Your task to perform on an android device: Open Amazon Image 0: 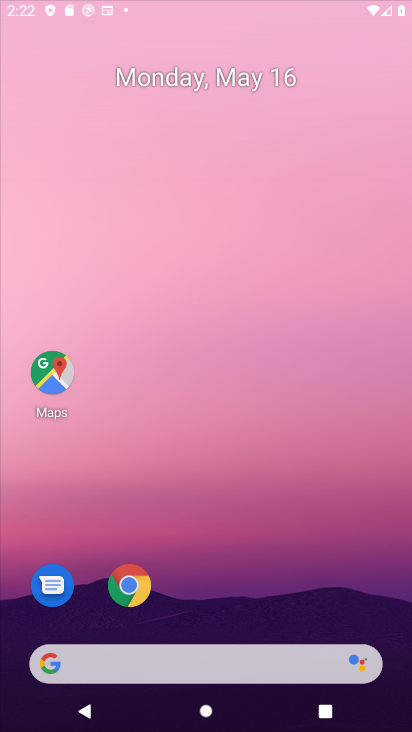
Step 0: drag from (231, 458) to (253, 116)
Your task to perform on an android device: Open Amazon Image 1: 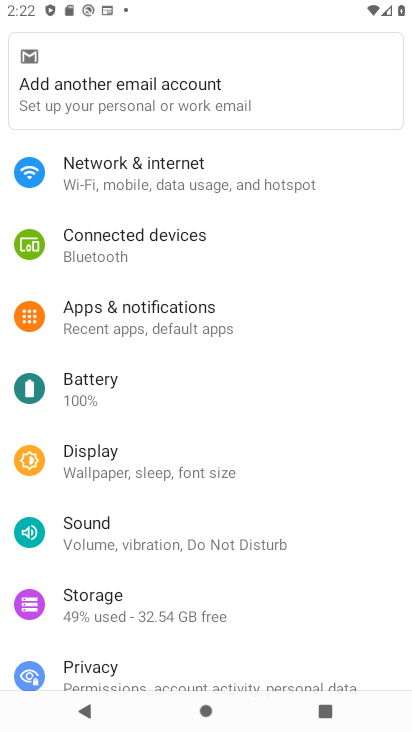
Step 1: press home button
Your task to perform on an android device: Open Amazon Image 2: 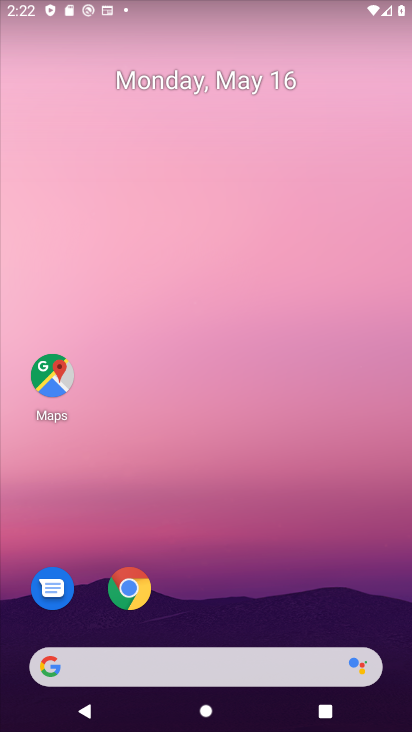
Step 2: click (120, 602)
Your task to perform on an android device: Open Amazon Image 3: 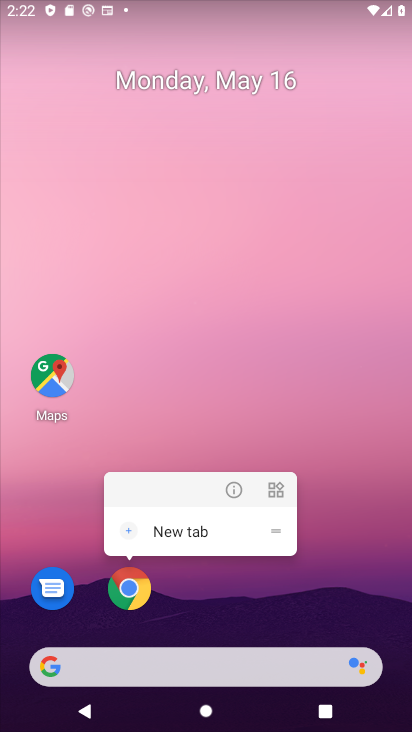
Step 3: click (134, 586)
Your task to perform on an android device: Open Amazon Image 4: 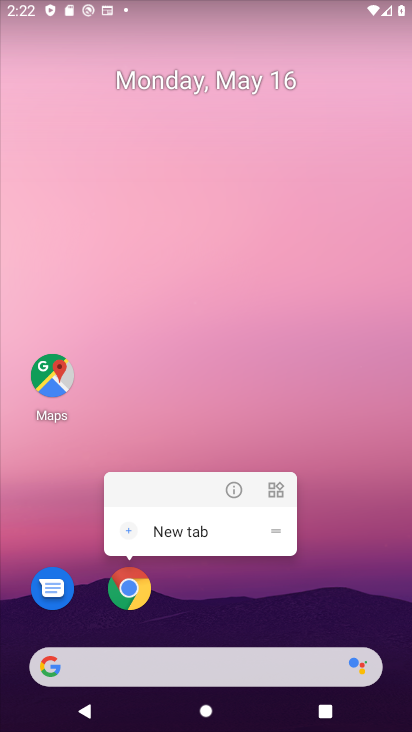
Step 4: click (144, 601)
Your task to perform on an android device: Open Amazon Image 5: 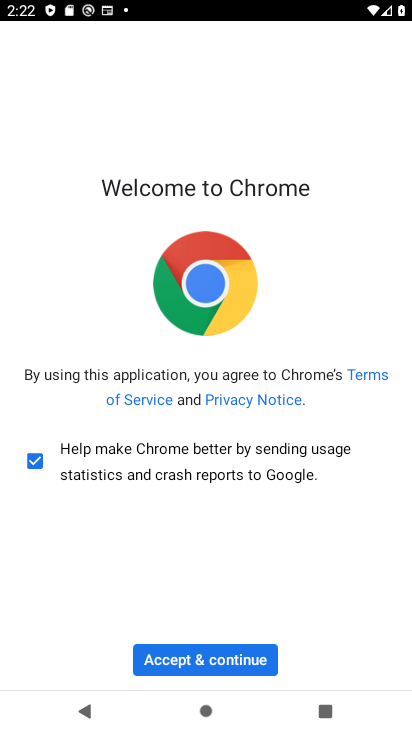
Step 5: click (235, 666)
Your task to perform on an android device: Open Amazon Image 6: 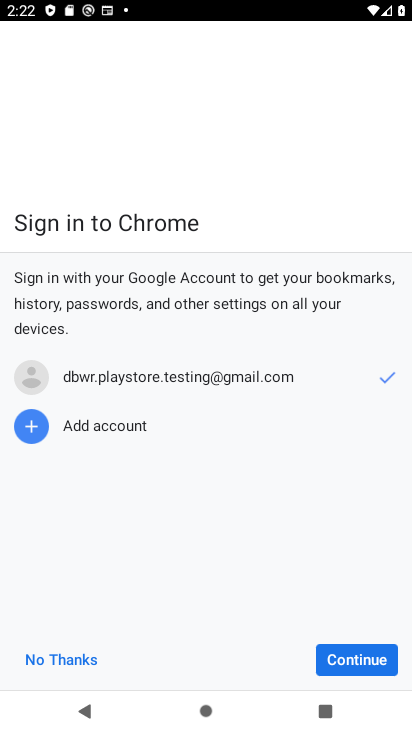
Step 6: click (374, 666)
Your task to perform on an android device: Open Amazon Image 7: 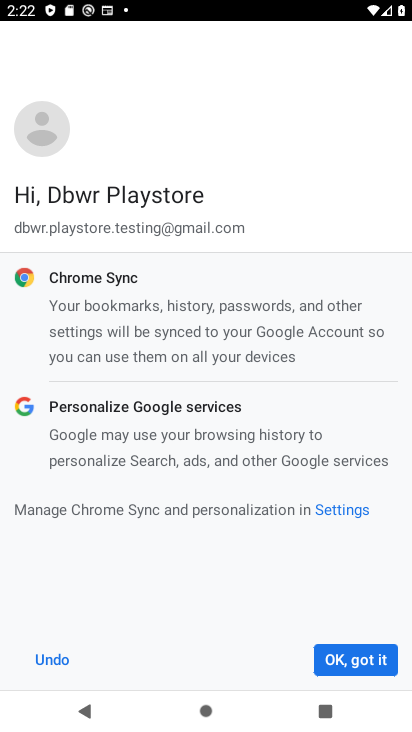
Step 7: click (366, 659)
Your task to perform on an android device: Open Amazon Image 8: 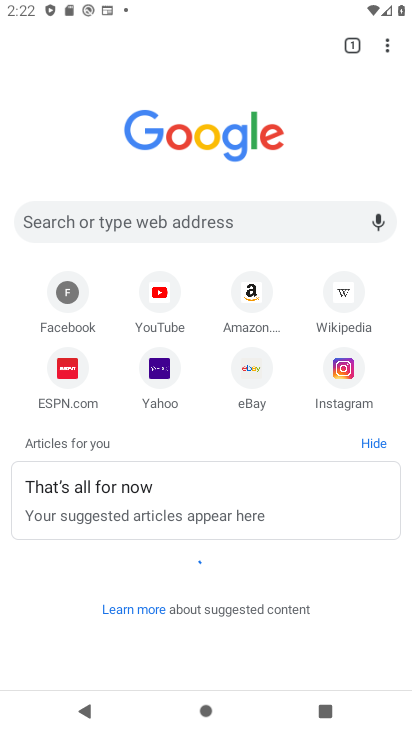
Step 8: click (258, 295)
Your task to perform on an android device: Open Amazon Image 9: 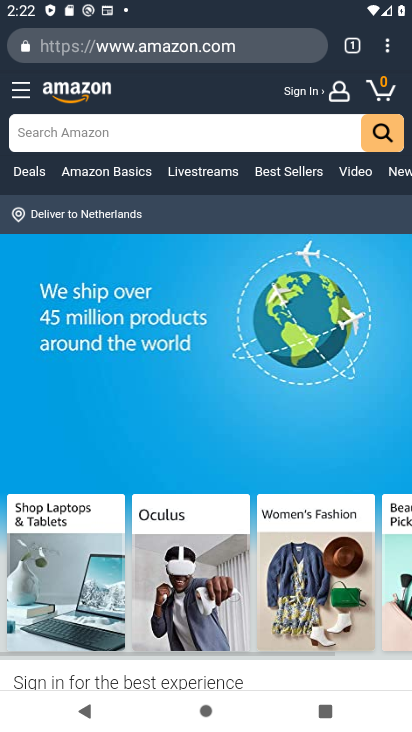
Step 9: task complete